Your task to perform on an android device: Open my contact list Image 0: 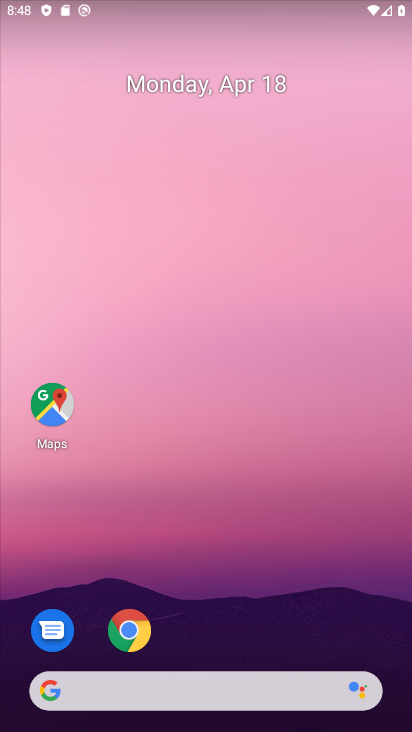
Step 0: drag from (300, 522) to (315, 60)
Your task to perform on an android device: Open my contact list Image 1: 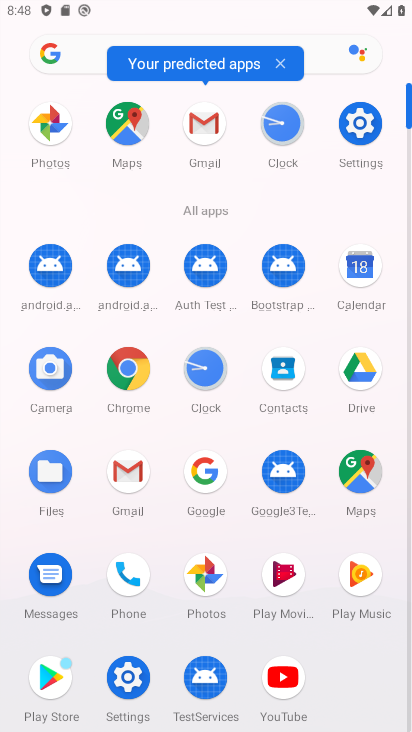
Step 1: click (279, 373)
Your task to perform on an android device: Open my contact list Image 2: 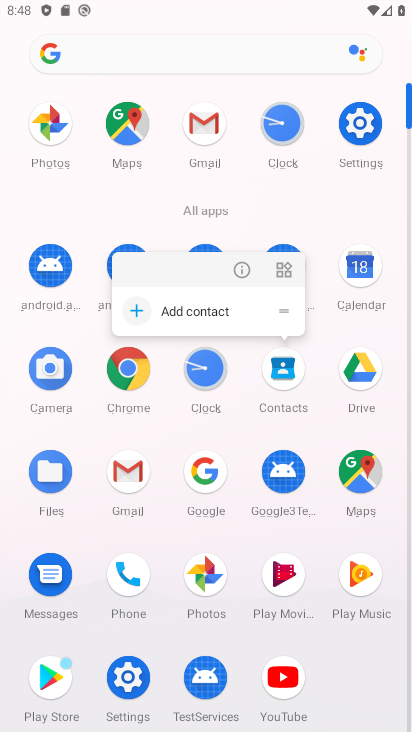
Step 2: click (279, 375)
Your task to perform on an android device: Open my contact list Image 3: 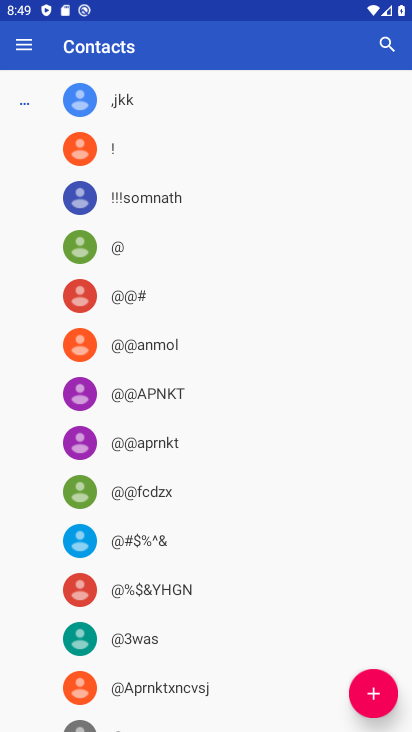
Step 3: task complete